Your task to perform on an android device: Show me productivity apps on the Play Store Image 0: 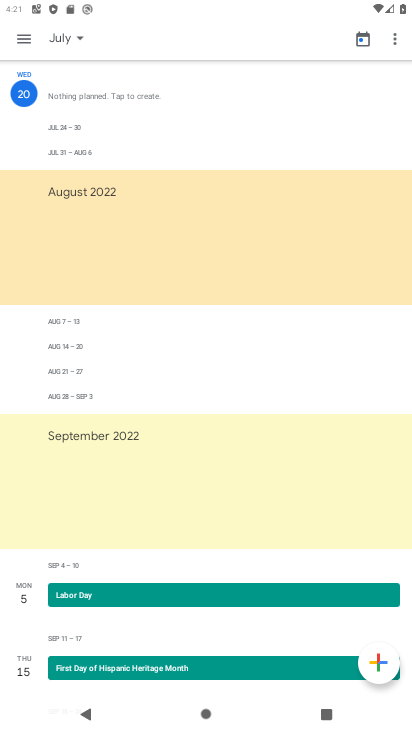
Step 0: press home button
Your task to perform on an android device: Show me productivity apps on the Play Store Image 1: 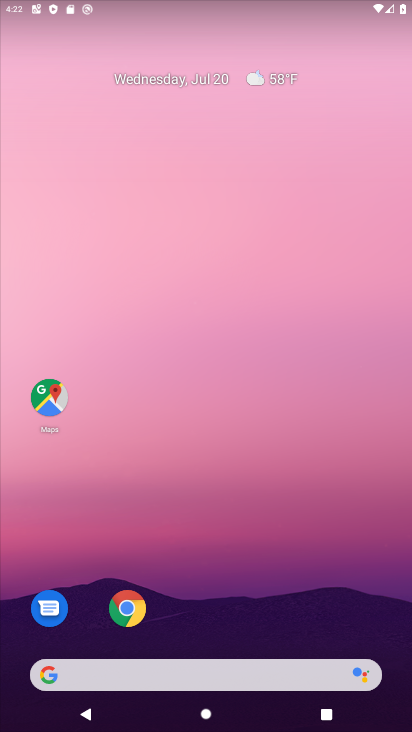
Step 1: drag from (191, 644) to (164, 68)
Your task to perform on an android device: Show me productivity apps on the Play Store Image 2: 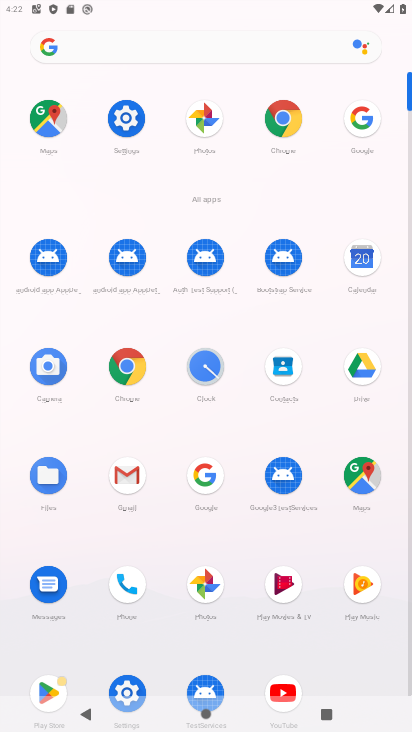
Step 2: click (36, 687)
Your task to perform on an android device: Show me productivity apps on the Play Store Image 3: 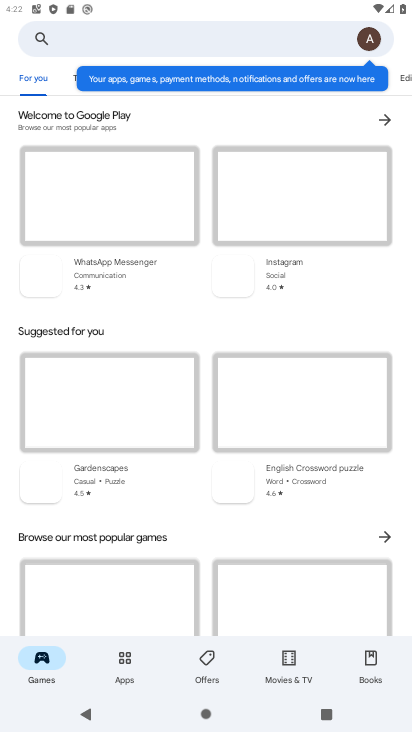
Step 3: click (132, 656)
Your task to perform on an android device: Show me productivity apps on the Play Store Image 4: 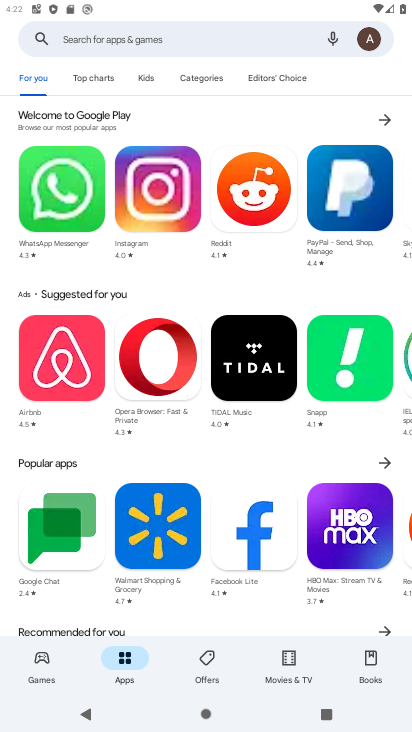
Step 4: click (216, 77)
Your task to perform on an android device: Show me productivity apps on the Play Store Image 5: 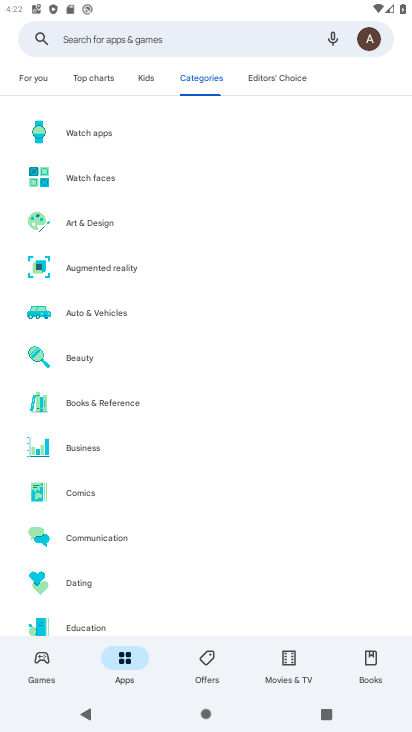
Step 5: drag from (184, 501) to (7, 2)
Your task to perform on an android device: Show me productivity apps on the Play Store Image 6: 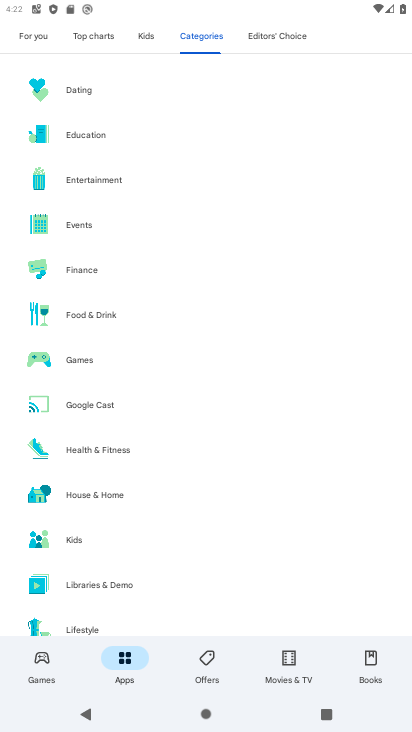
Step 6: drag from (244, 577) to (212, 53)
Your task to perform on an android device: Show me productivity apps on the Play Store Image 7: 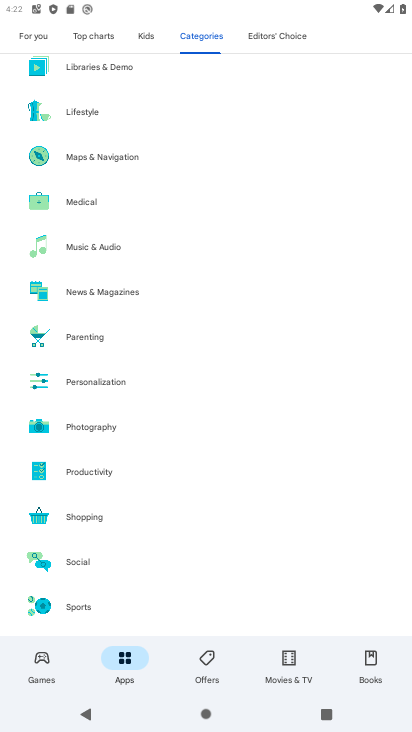
Step 7: click (57, 476)
Your task to perform on an android device: Show me productivity apps on the Play Store Image 8: 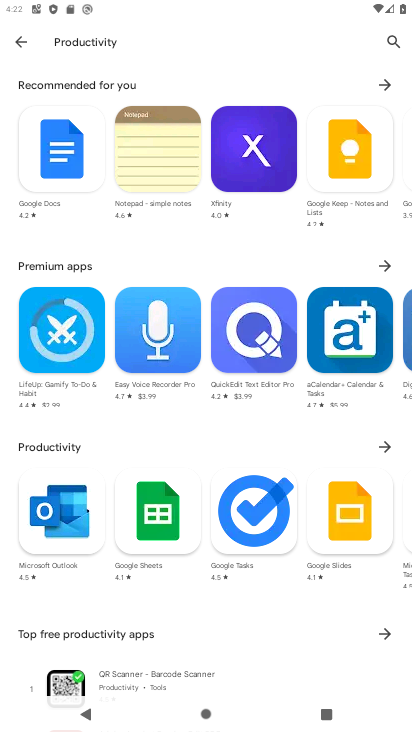
Step 8: task complete